Your task to perform on an android device: open app "Mercado Libre" (install if not already installed) Image 0: 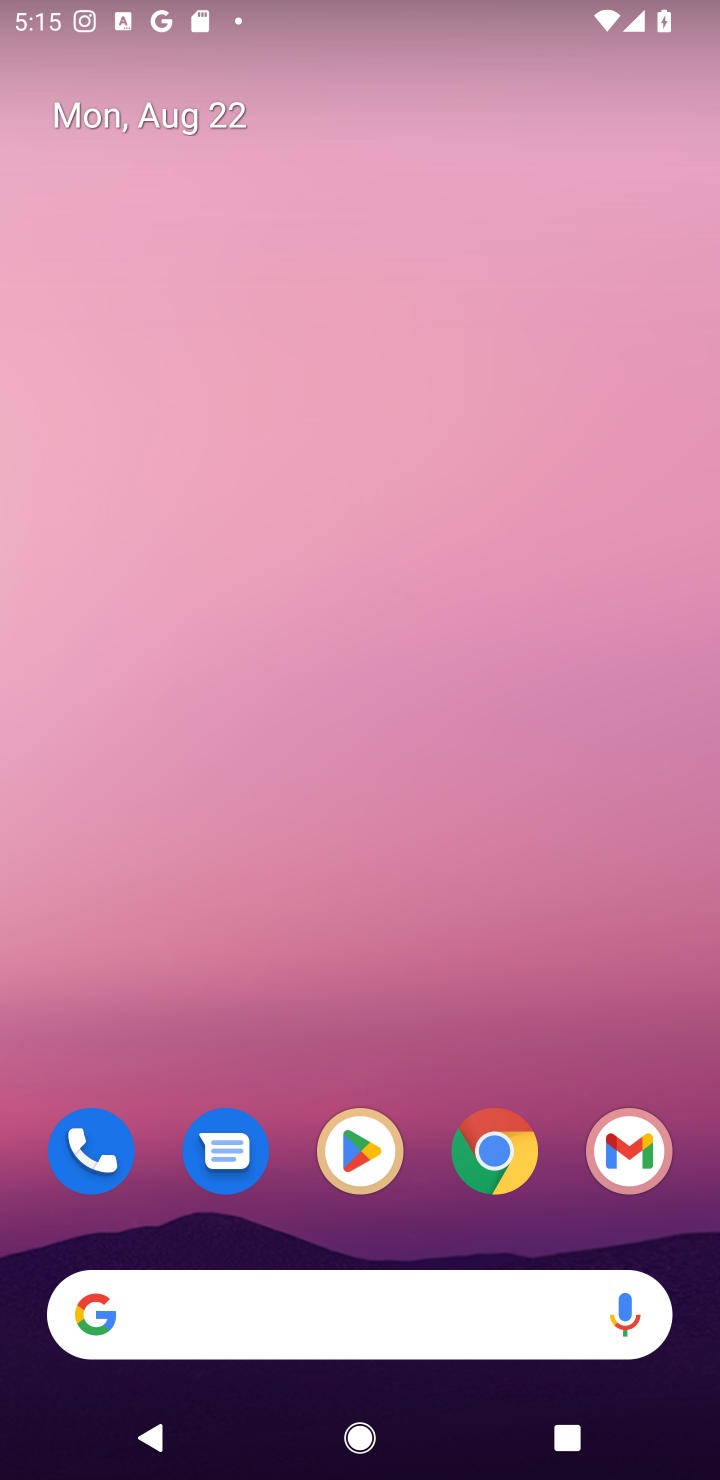
Step 0: click (350, 1156)
Your task to perform on an android device: open app "Mercado Libre" (install if not already installed) Image 1: 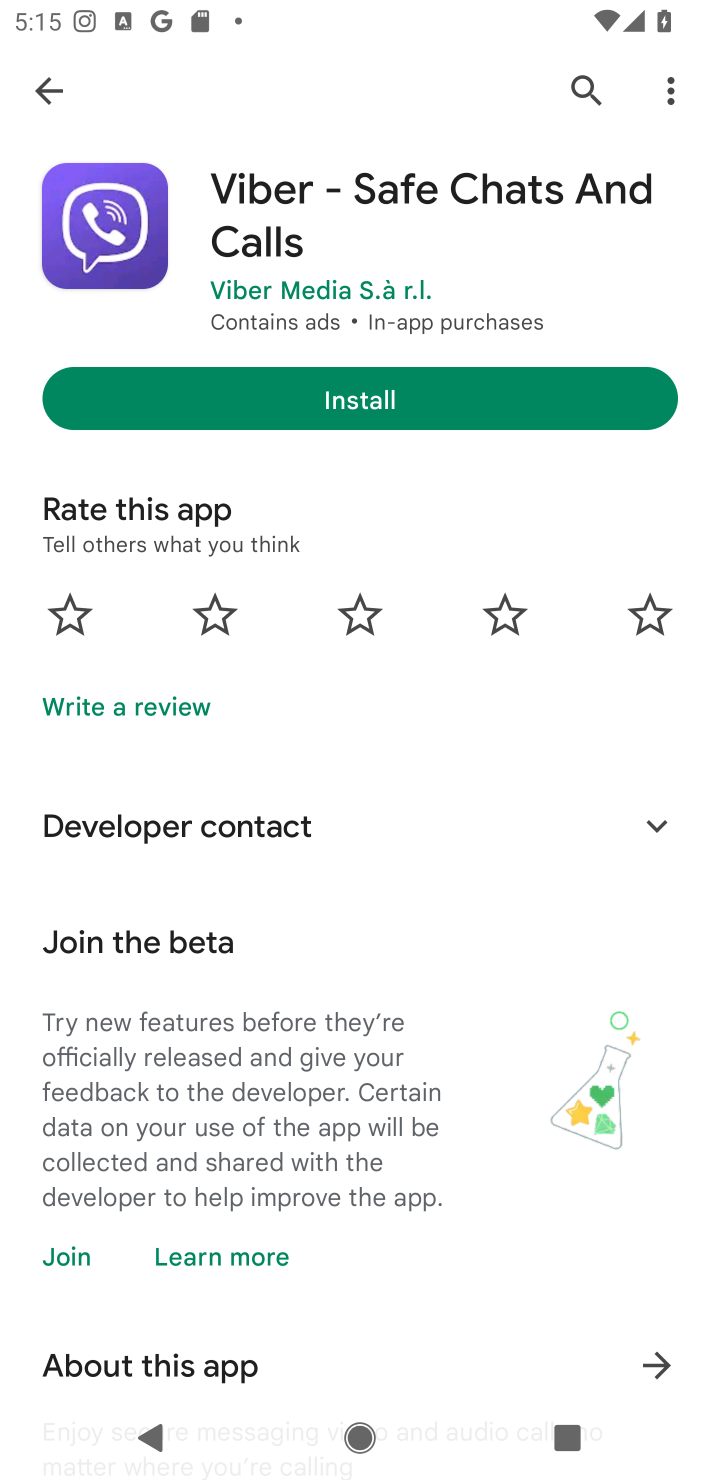
Step 1: click (586, 81)
Your task to perform on an android device: open app "Mercado Libre" (install if not already installed) Image 2: 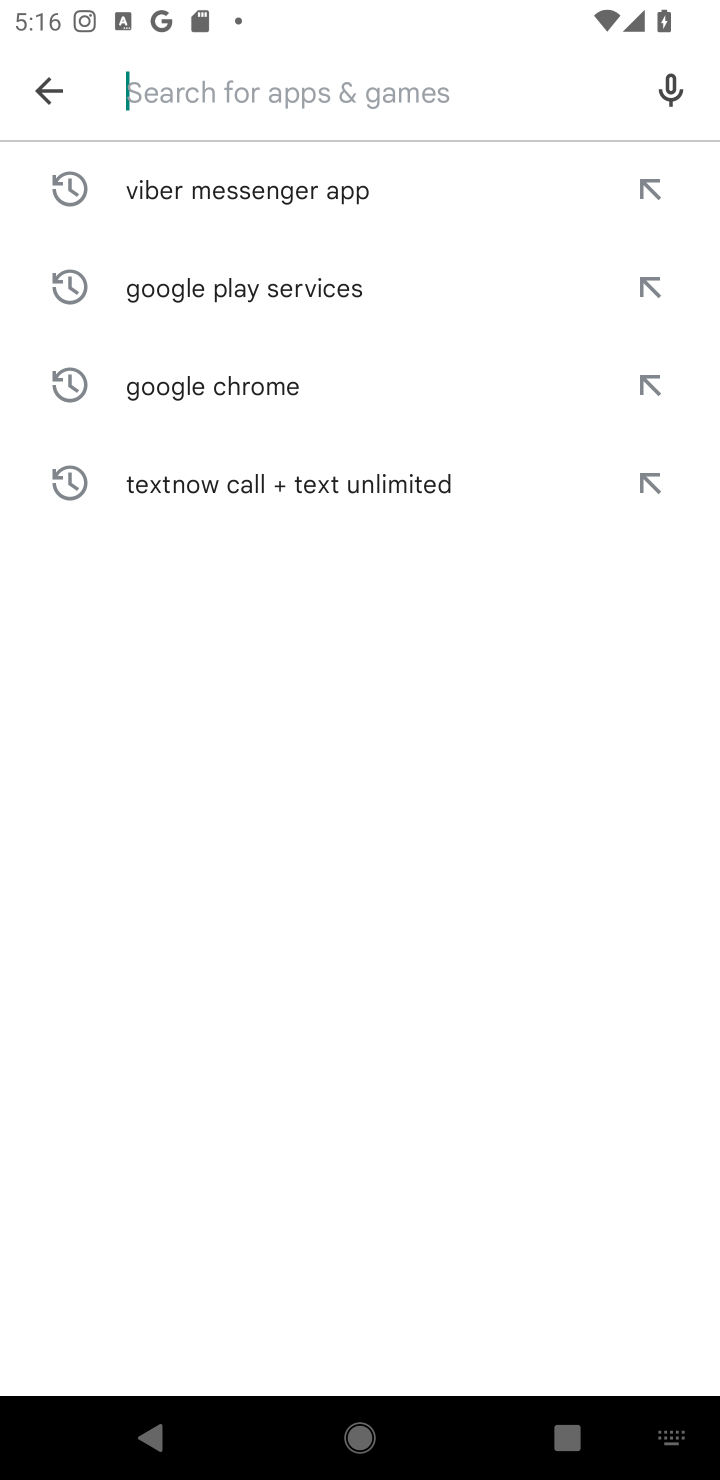
Step 2: type "Mercado Libre"
Your task to perform on an android device: open app "Mercado Libre" (install if not already installed) Image 3: 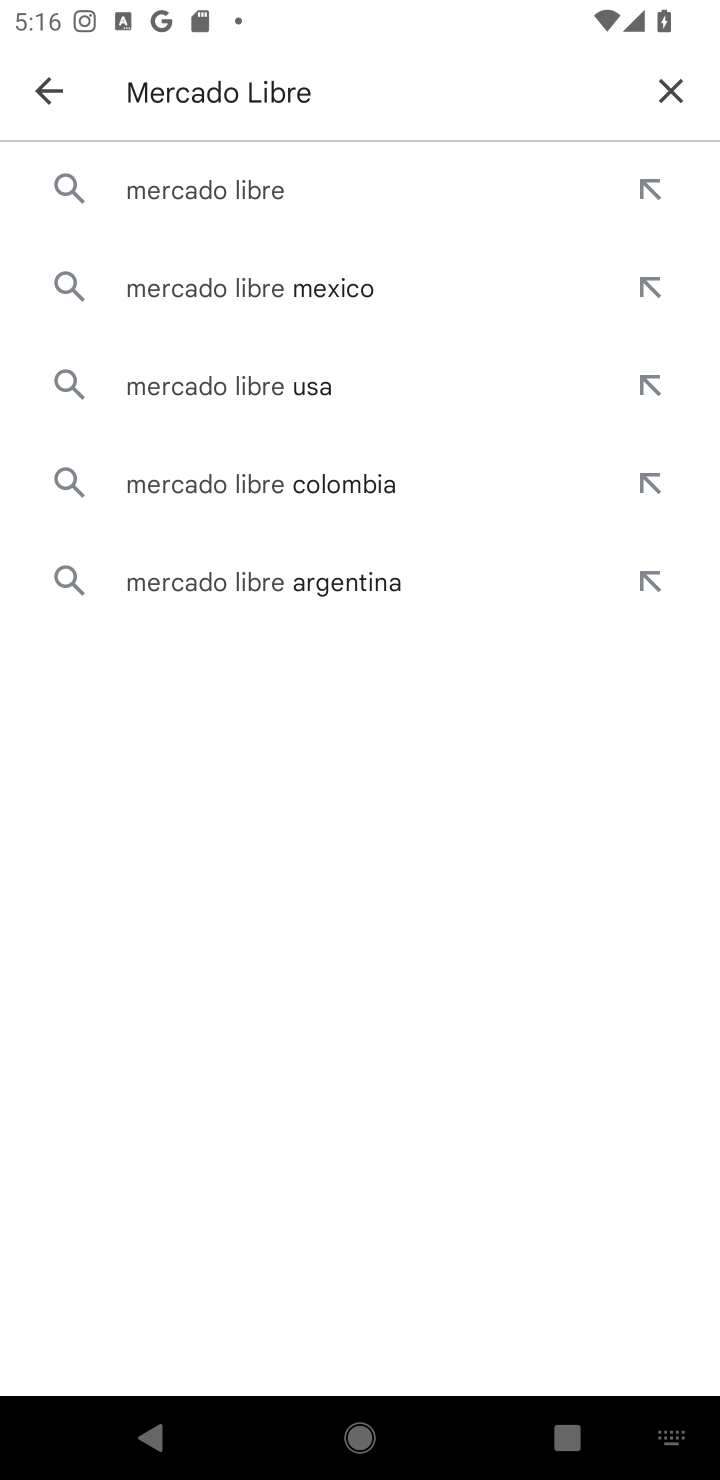
Step 3: click (158, 178)
Your task to perform on an android device: open app "Mercado Libre" (install if not already installed) Image 4: 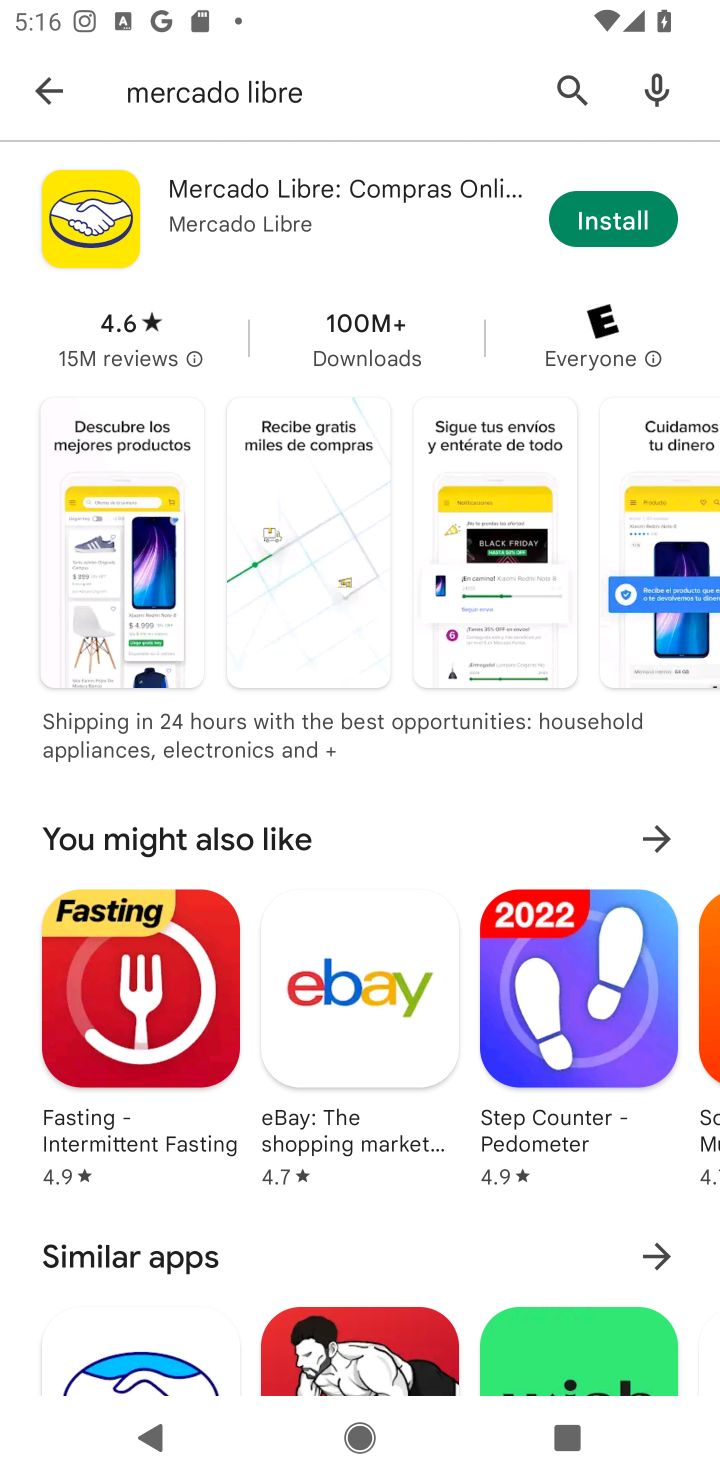
Step 4: click (643, 209)
Your task to perform on an android device: open app "Mercado Libre" (install if not already installed) Image 5: 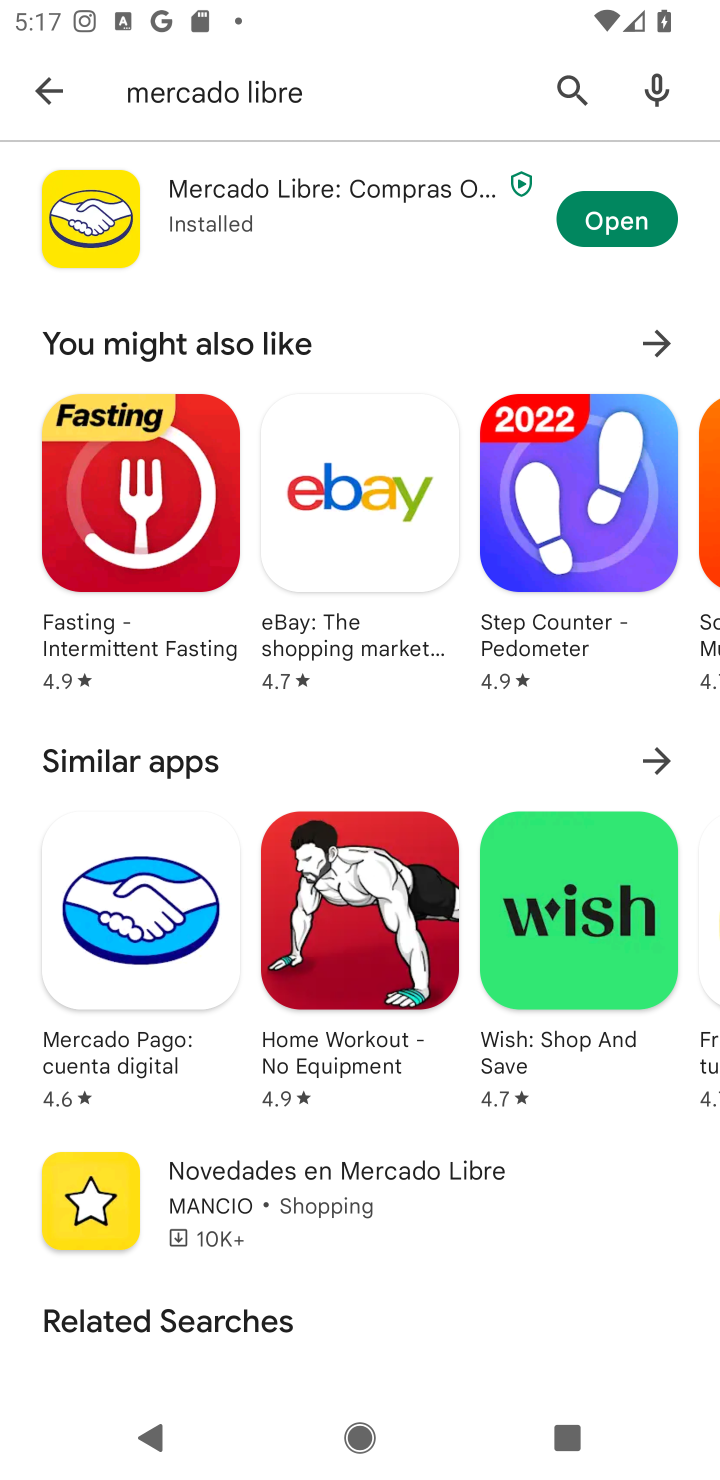
Step 5: click (623, 221)
Your task to perform on an android device: open app "Mercado Libre" (install if not already installed) Image 6: 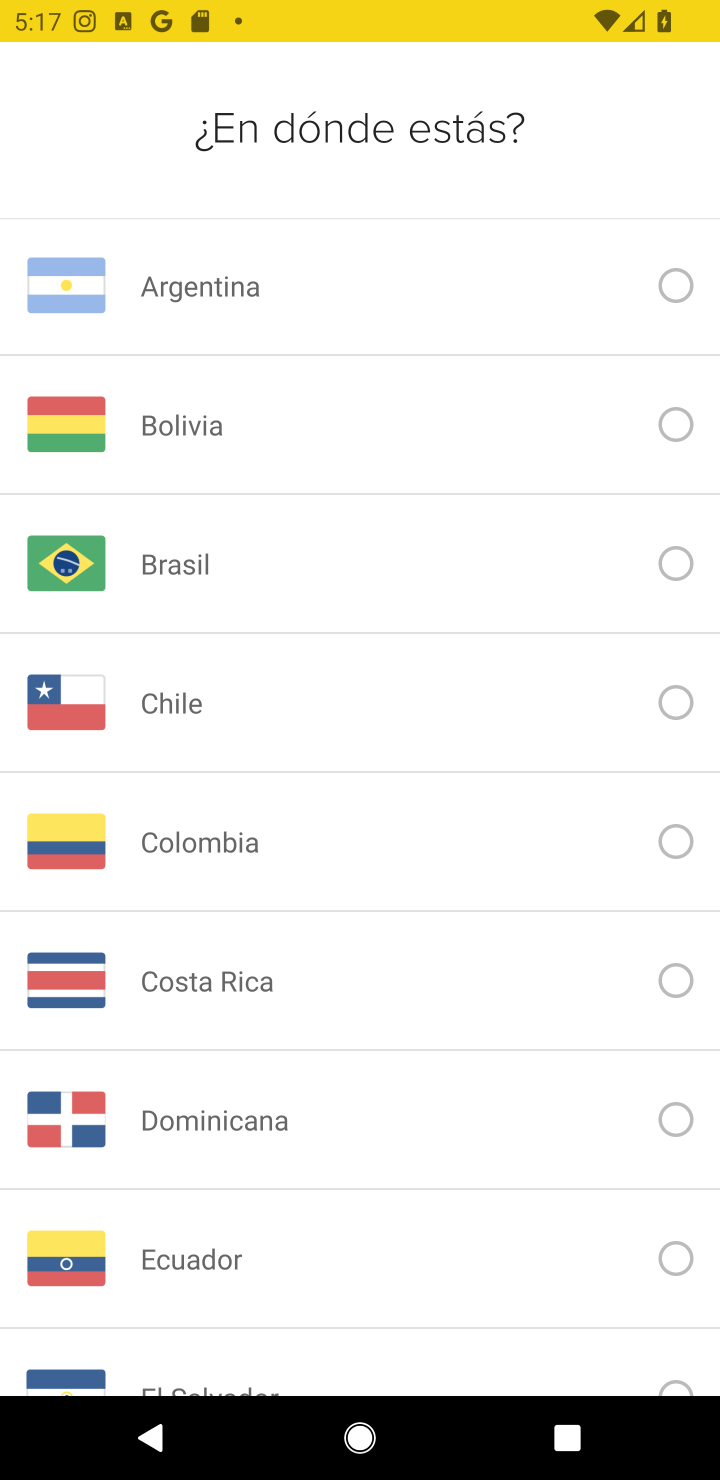
Step 6: task complete